Your task to perform on an android device: toggle data saver in the chrome app Image 0: 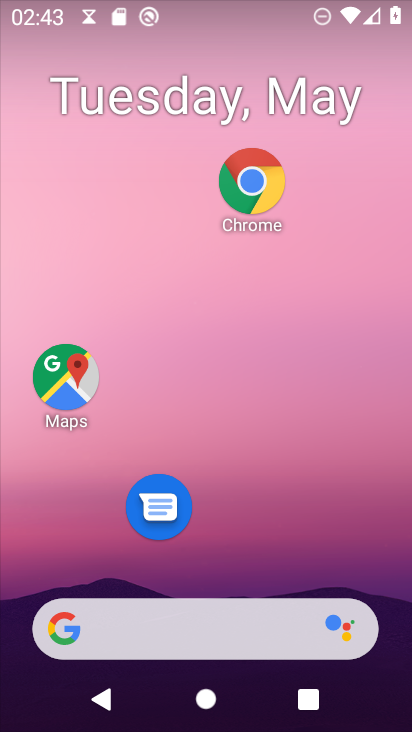
Step 0: drag from (187, 547) to (227, 215)
Your task to perform on an android device: toggle data saver in the chrome app Image 1: 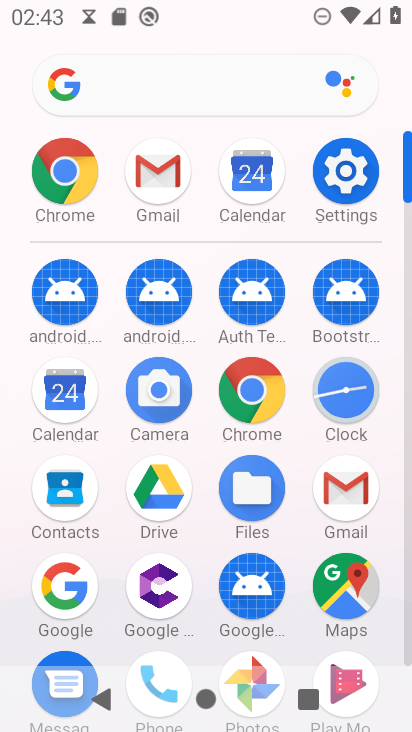
Step 1: click (66, 164)
Your task to perform on an android device: toggle data saver in the chrome app Image 2: 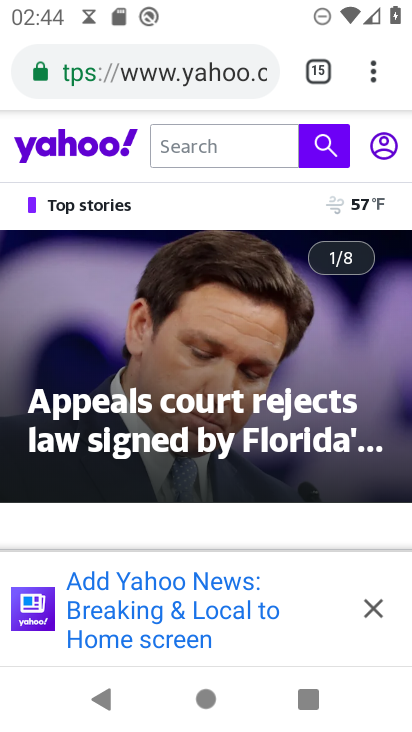
Step 2: click (375, 64)
Your task to perform on an android device: toggle data saver in the chrome app Image 3: 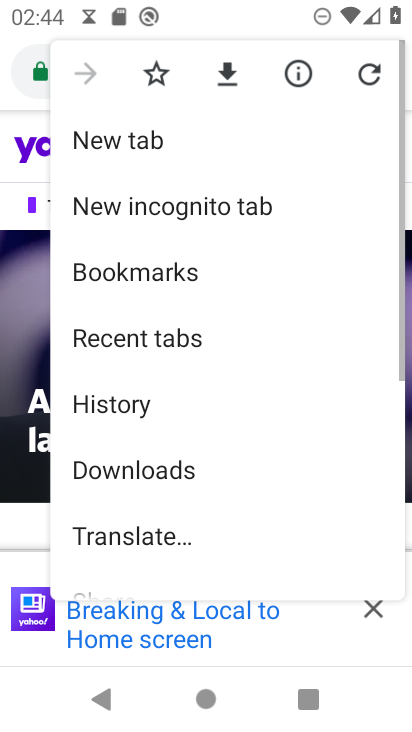
Step 3: drag from (138, 513) to (246, 172)
Your task to perform on an android device: toggle data saver in the chrome app Image 4: 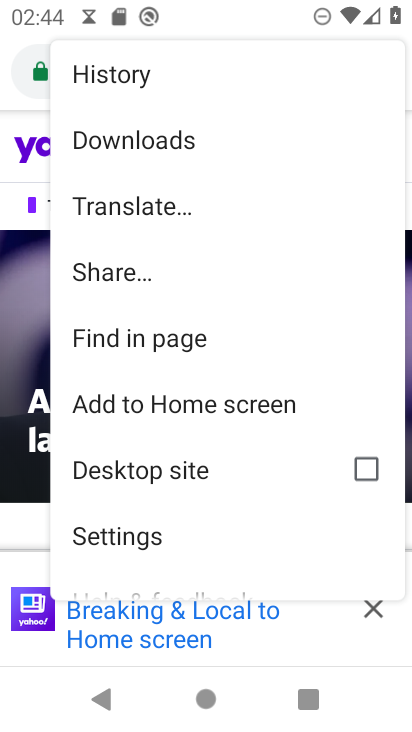
Step 4: click (168, 538)
Your task to perform on an android device: toggle data saver in the chrome app Image 5: 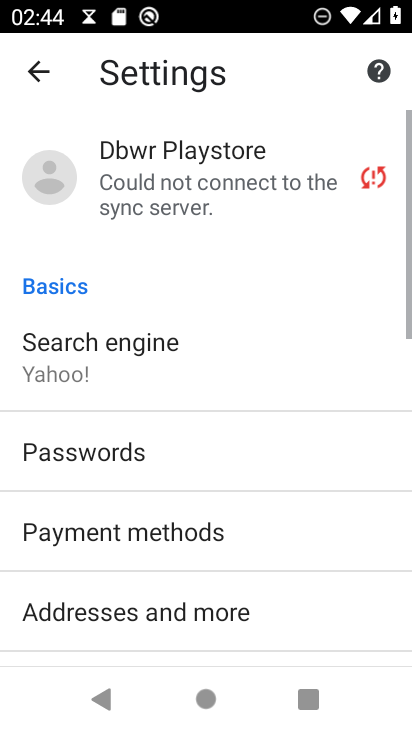
Step 5: drag from (212, 489) to (236, 225)
Your task to perform on an android device: toggle data saver in the chrome app Image 6: 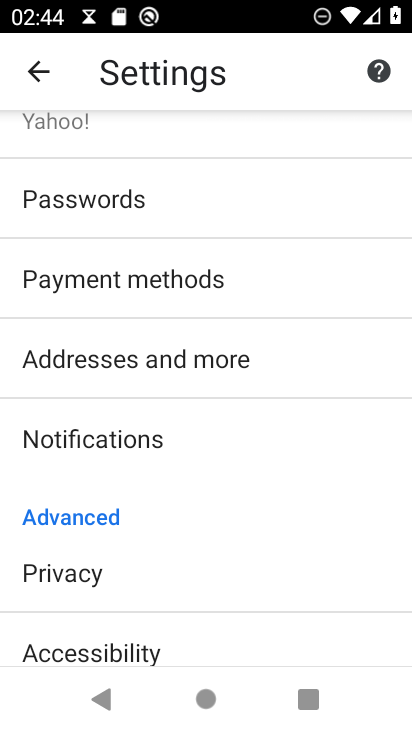
Step 6: drag from (186, 593) to (259, 207)
Your task to perform on an android device: toggle data saver in the chrome app Image 7: 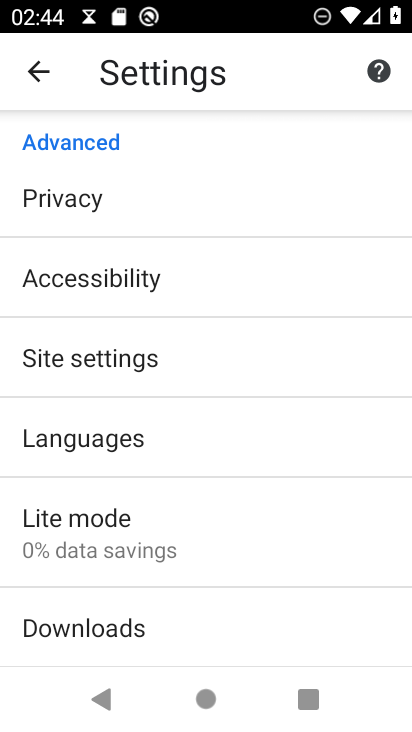
Step 7: click (140, 533)
Your task to perform on an android device: toggle data saver in the chrome app Image 8: 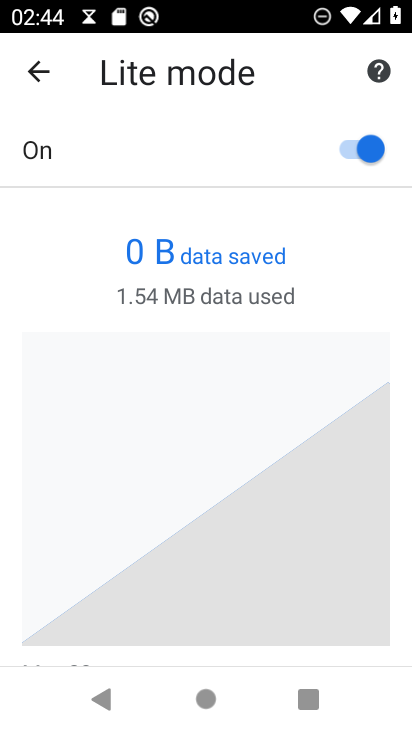
Step 8: task complete